Your task to perform on an android device: Find coffee shops on Maps Image 0: 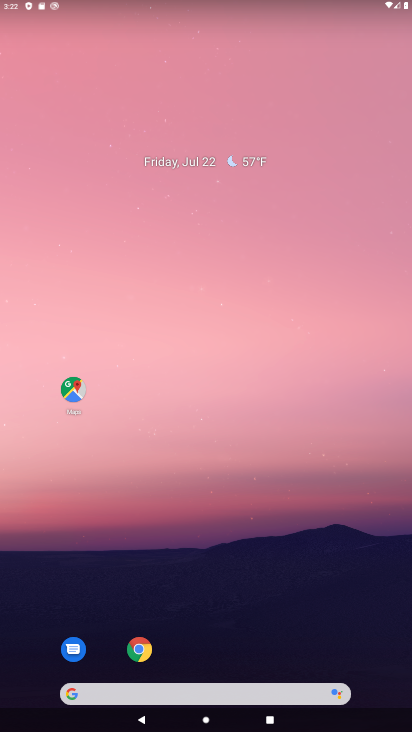
Step 0: click (70, 396)
Your task to perform on an android device: Find coffee shops on Maps Image 1: 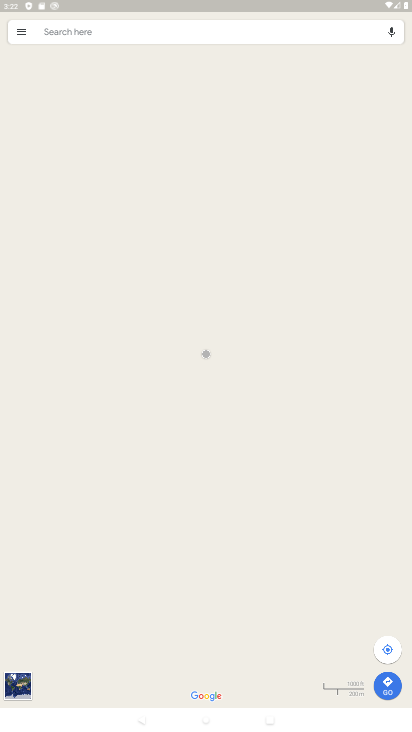
Step 1: click (111, 18)
Your task to perform on an android device: Find coffee shops on Maps Image 2: 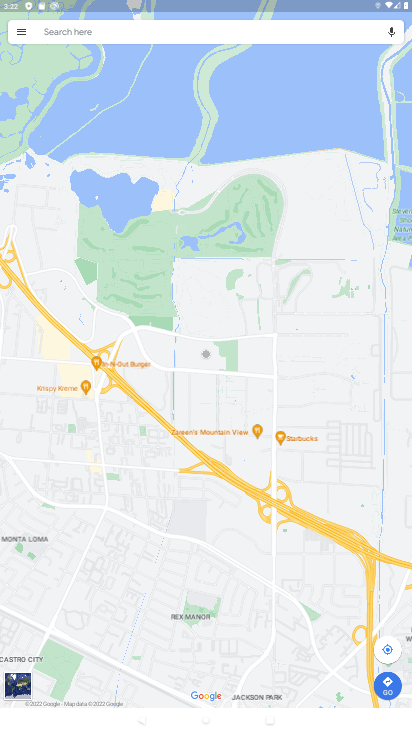
Step 2: click (46, 34)
Your task to perform on an android device: Find coffee shops on Maps Image 3: 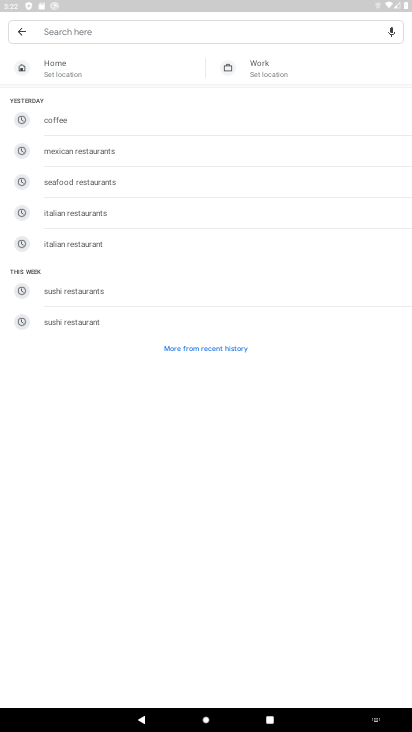
Step 3: type ""
Your task to perform on an android device: Find coffee shops on Maps Image 4: 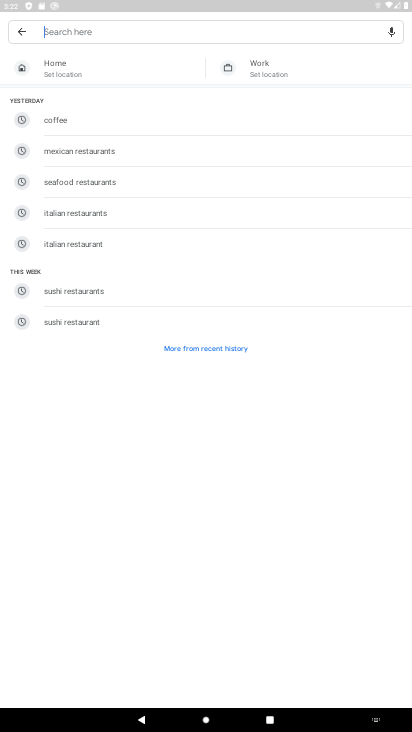
Step 4: type " coffee shops"
Your task to perform on an android device: Find coffee shops on Maps Image 5: 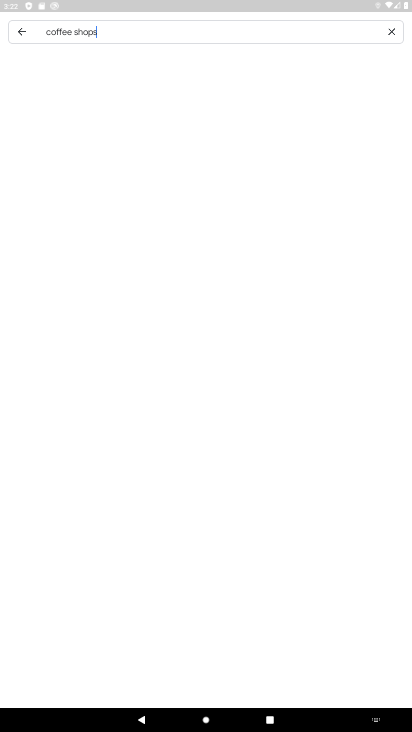
Step 5: type ""
Your task to perform on an android device: Find coffee shops on Maps Image 6: 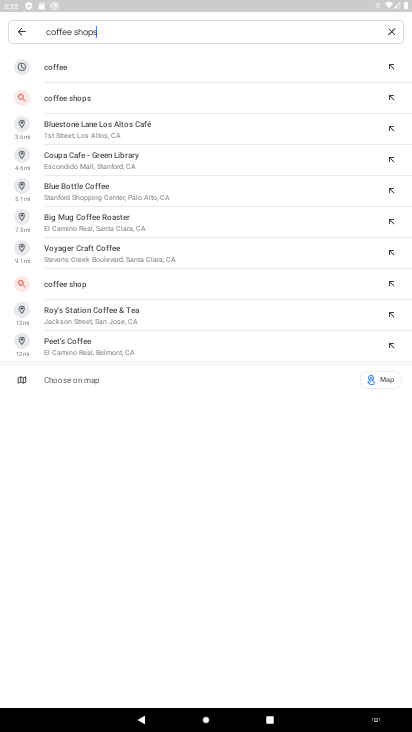
Step 6: type ""
Your task to perform on an android device: Find coffee shops on Maps Image 7: 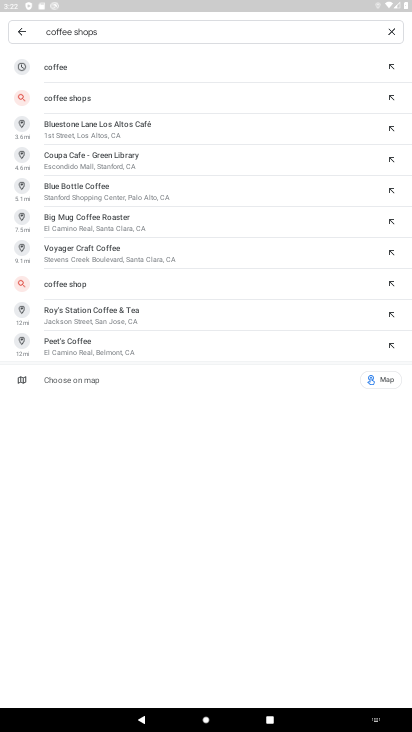
Step 7: type ""
Your task to perform on an android device: Find coffee shops on Maps Image 8: 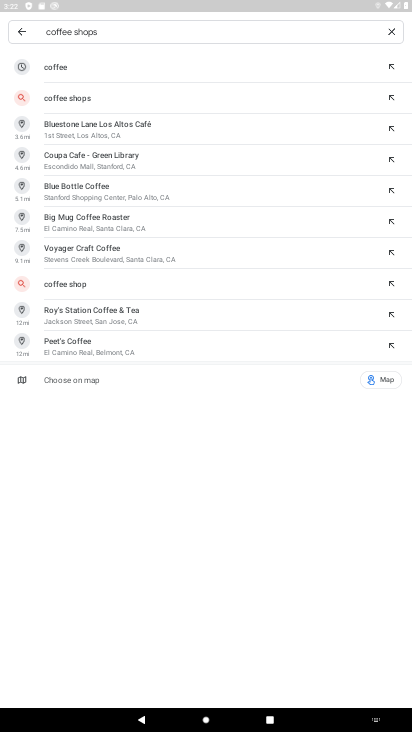
Step 8: click (81, 102)
Your task to perform on an android device: Find coffee shops on Maps Image 9: 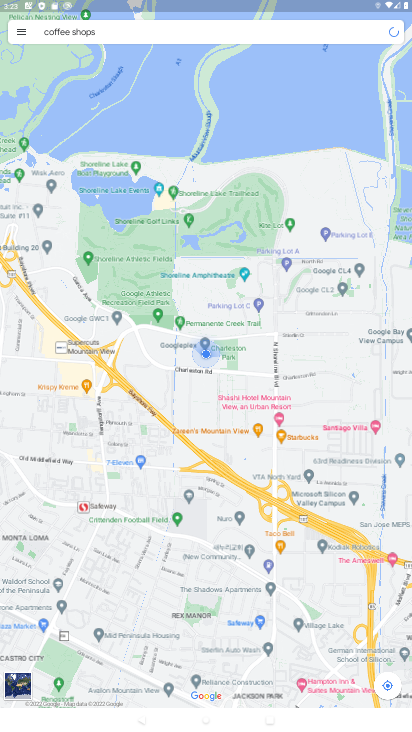
Step 9: task complete